Your task to perform on an android device: see creations saved in the google photos Image 0: 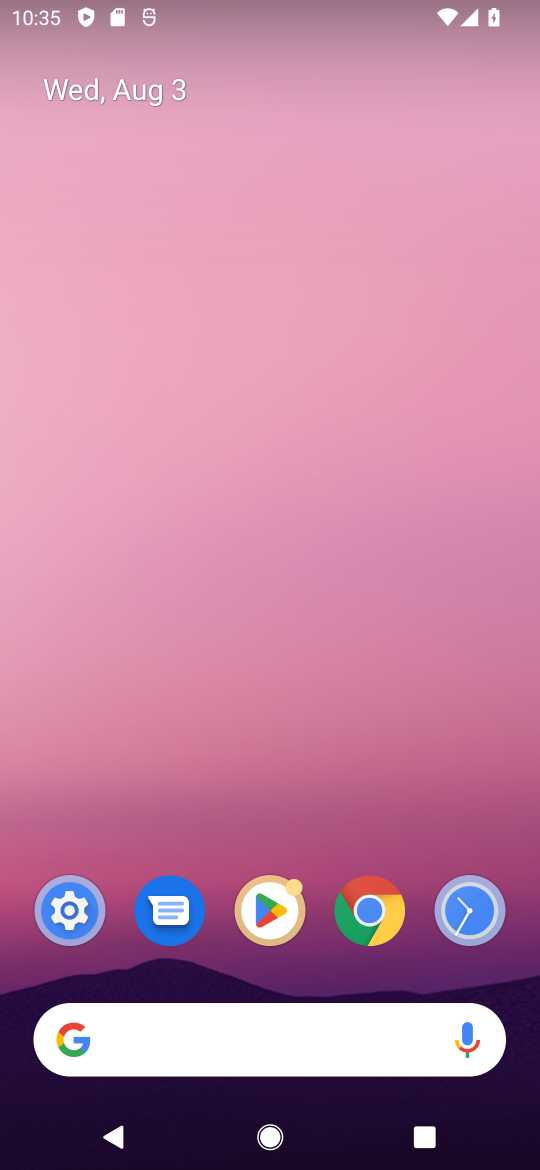
Step 0: drag from (223, 928) to (295, 196)
Your task to perform on an android device: see creations saved in the google photos Image 1: 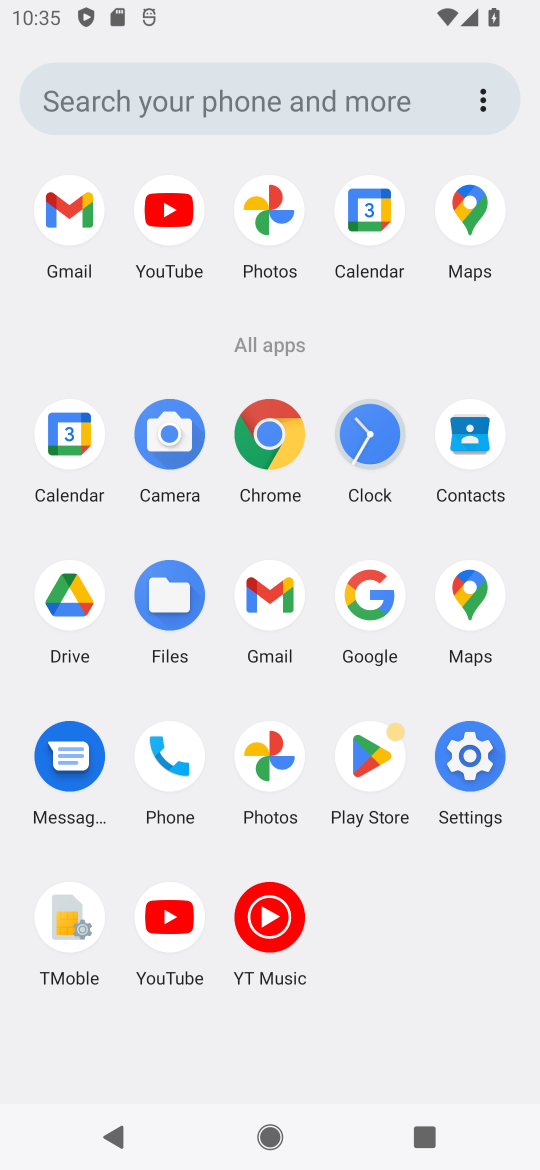
Step 1: click (262, 741)
Your task to perform on an android device: see creations saved in the google photos Image 2: 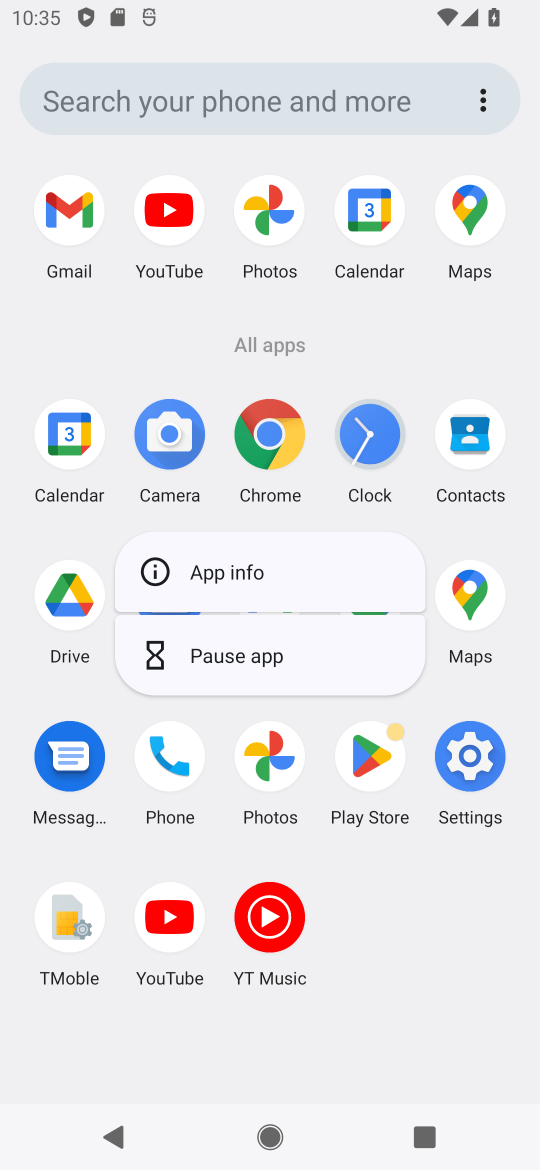
Step 2: click (256, 743)
Your task to perform on an android device: see creations saved in the google photos Image 3: 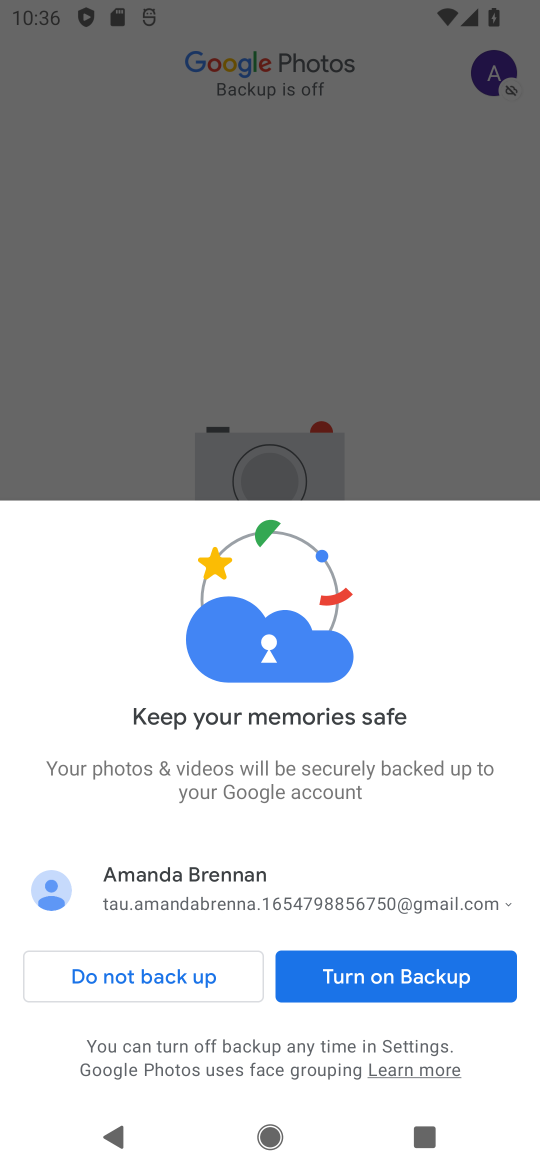
Step 3: click (396, 973)
Your task to perform on an android device: see creations saved in the google photos Image 4: 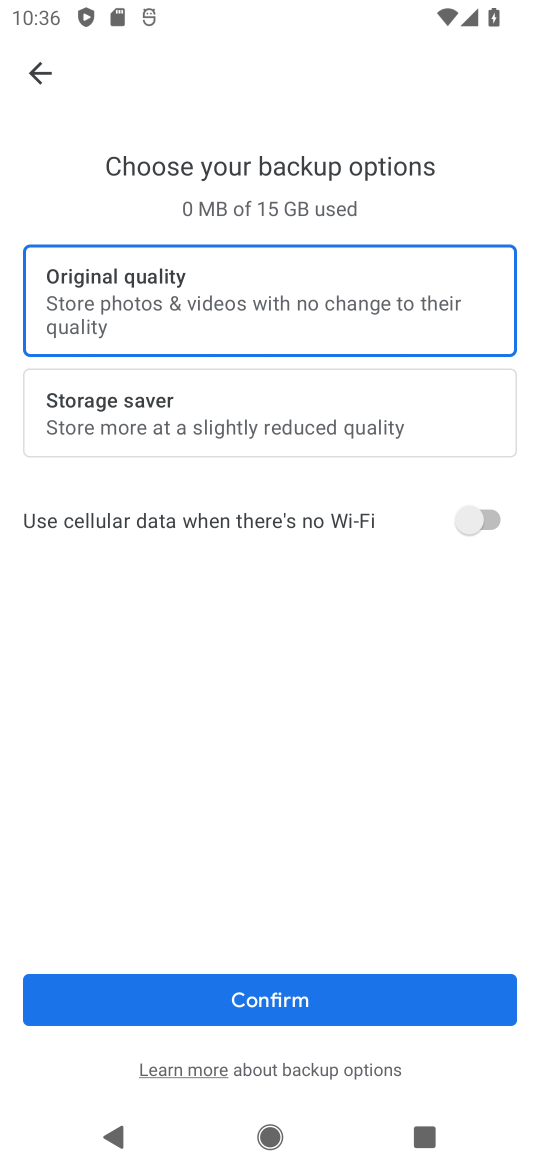
Step 4: click (286, 991)
Your task to perform on an android device: see creations saved in the google photos Image 5: 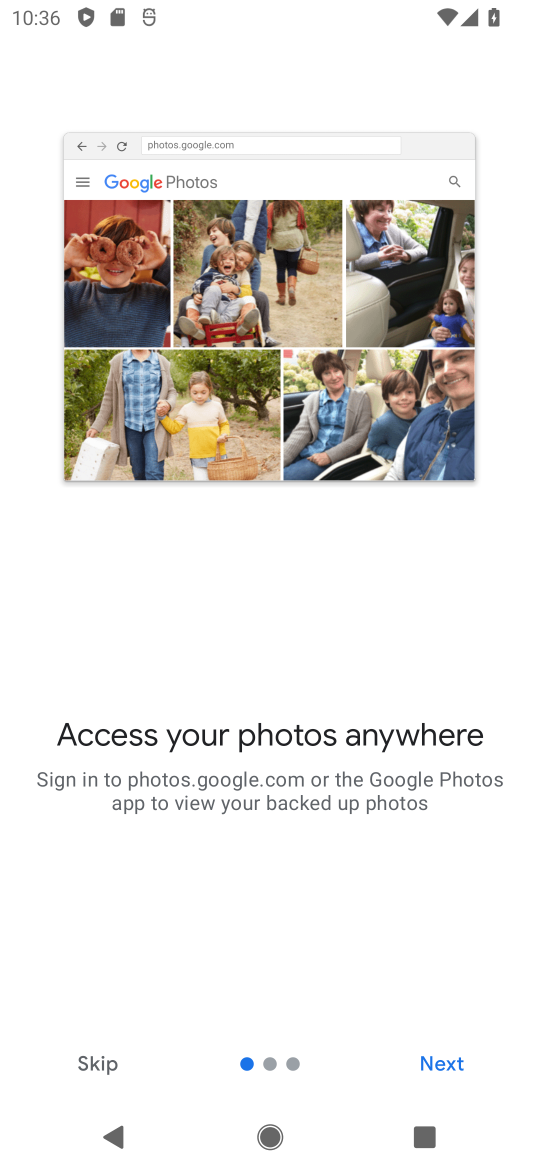
Step 5: click (88, 1055)
Your task to perform on an android device: see creations saved in the google photos Image 6: 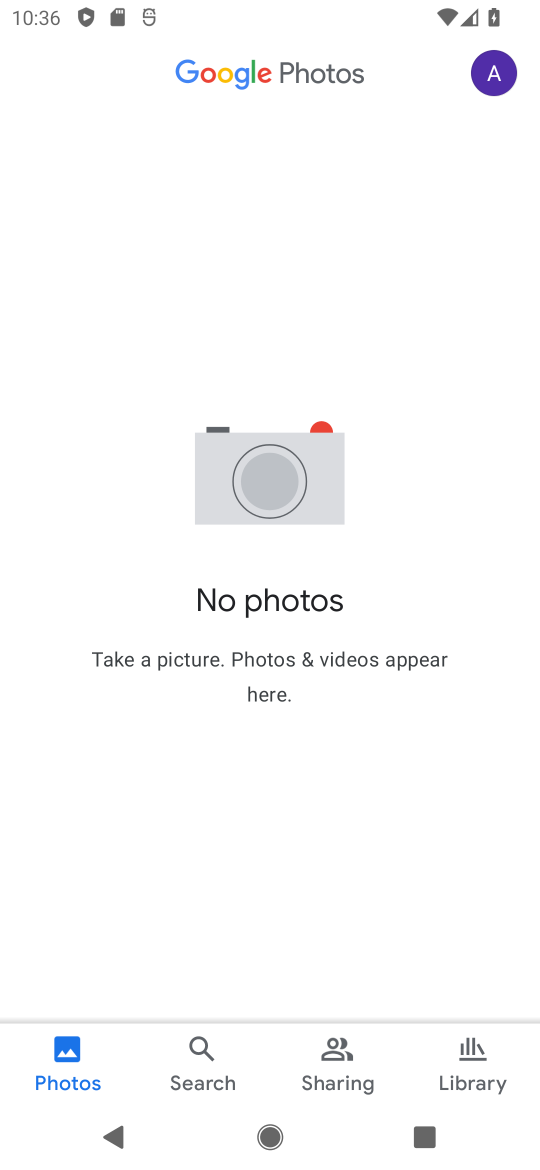
Step 6: click (209, 1039)
Your task to perform on an android device: see creations saved in the google photos Image 7: 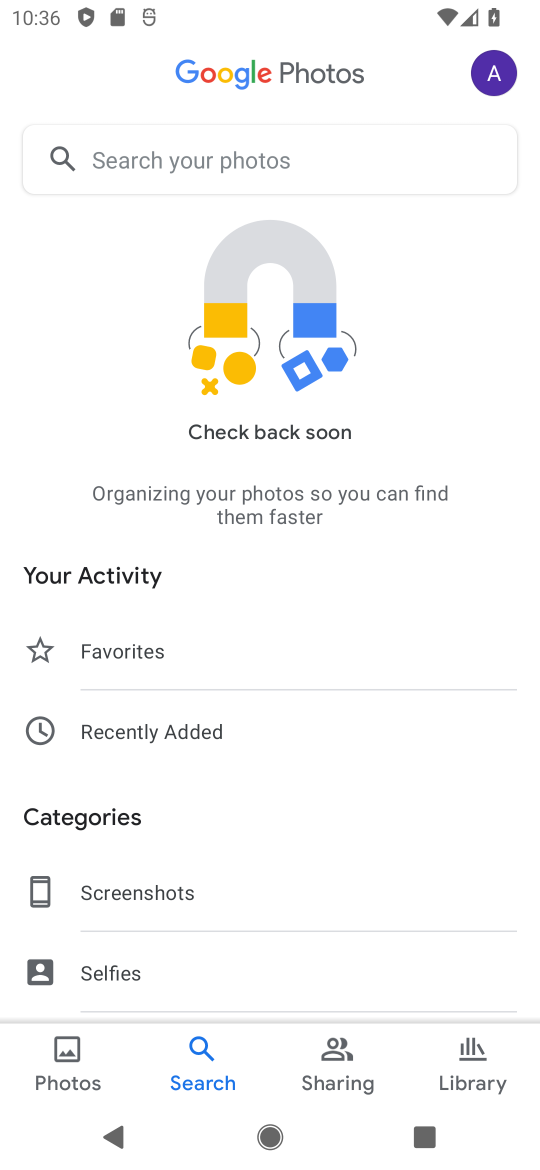
Step 7: drag from (201, 923) to (262, 298)
Your task to perform on an android device: see creations saved in the google photos Image 8: 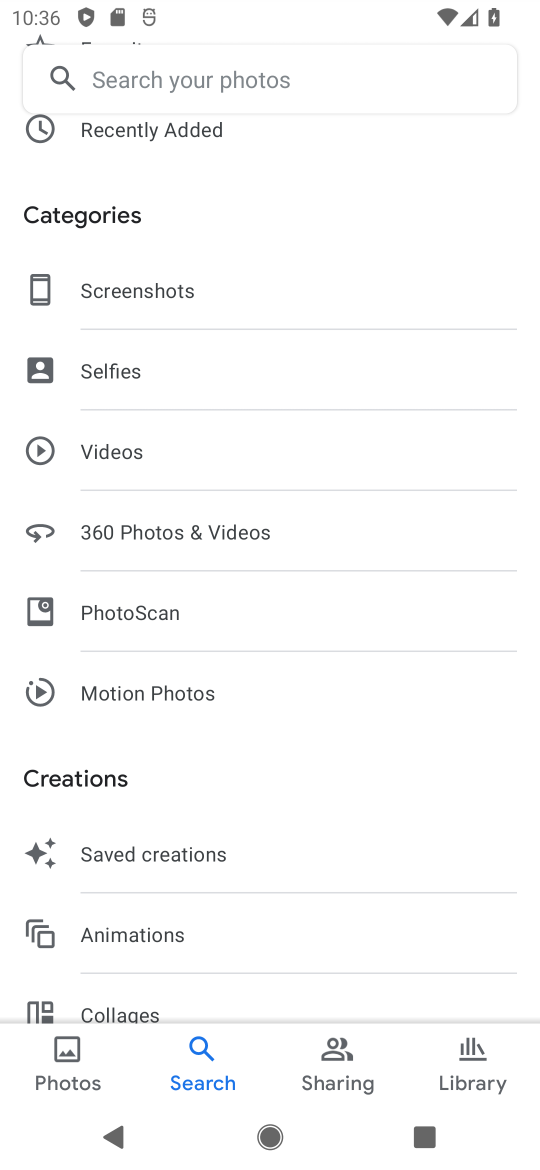
Step 8: click (174, 848)
Your task to perform on an android device: see creations saved in the google photos Image 9: 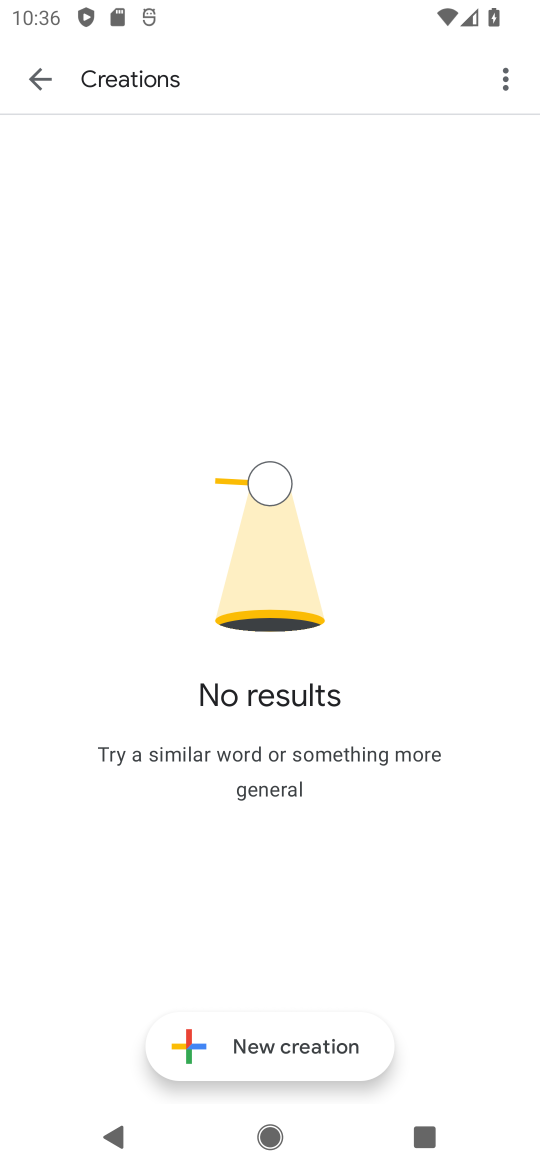
Step 9: task complete